Your task to perform on an android device: delete a single message in the gmail app Image 0: 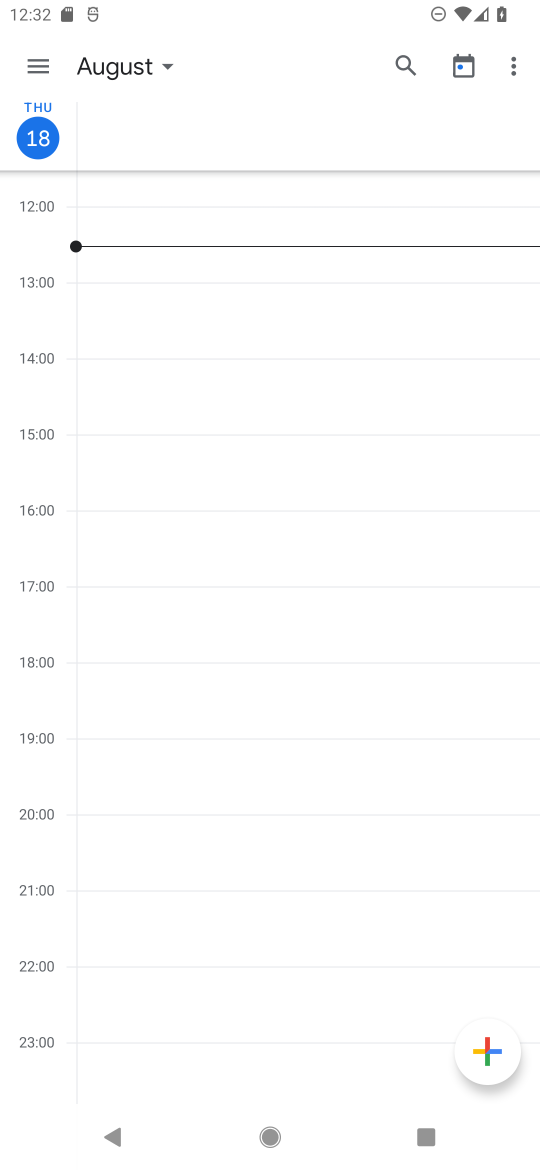
Step 0: press home button
Your task to perform on an android device: delete a single message in the gmail app Image 1: 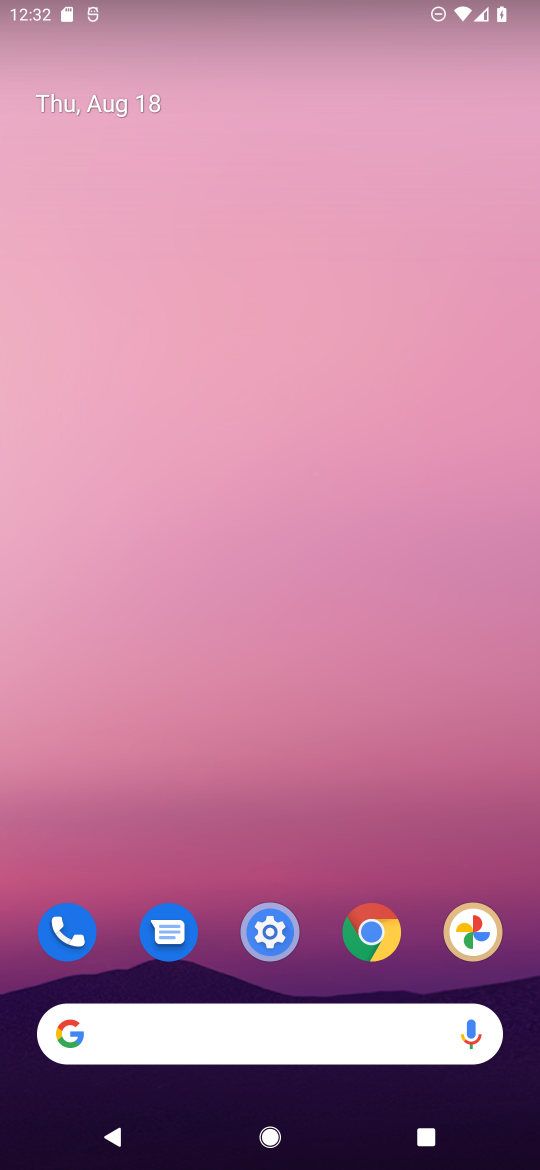
Step 1: drag from (306, 822) to (278, 186)
Your task to perform on an android device: delete a single message in the gmail app Image 2: 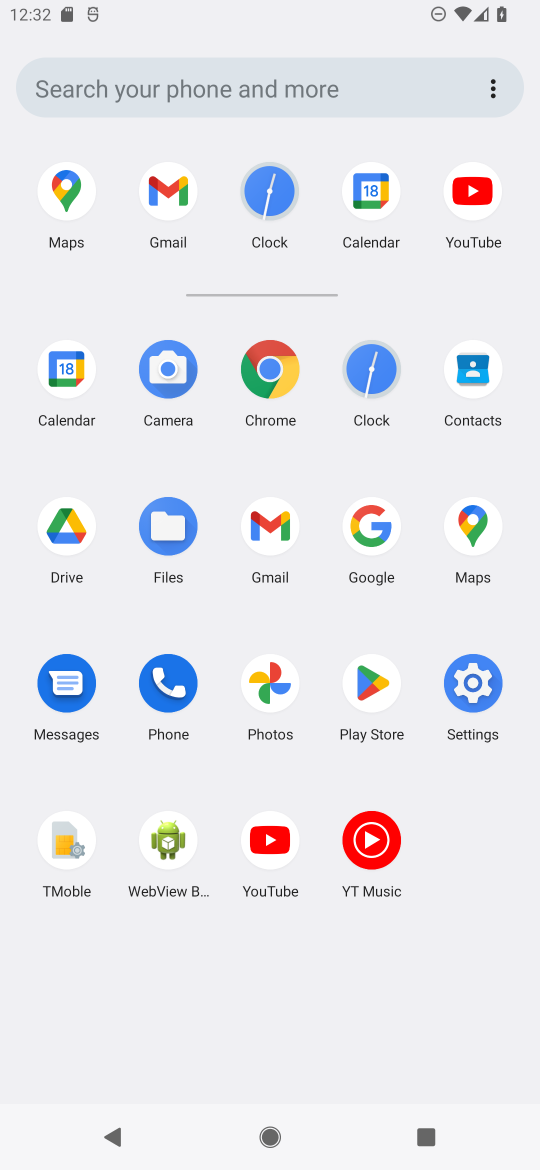
Step 2: click (162, 191)
Your task to perform on an android device: delete a single message in the gmail app Image 3: 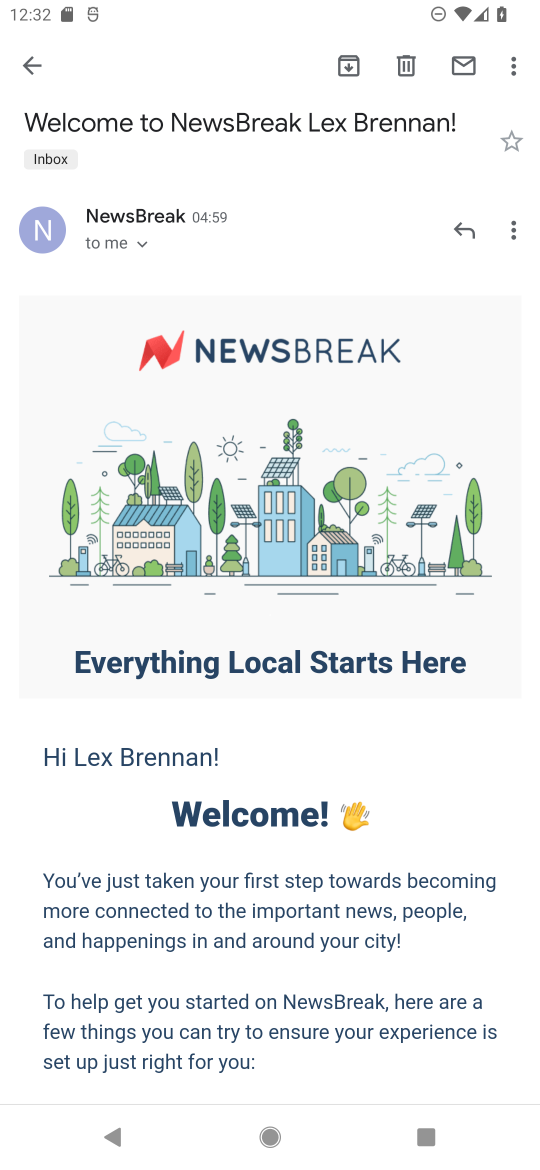
Step 3: click (409, 58)
Your task to perform on an android device: delete a single message in the gmail app Image 4: 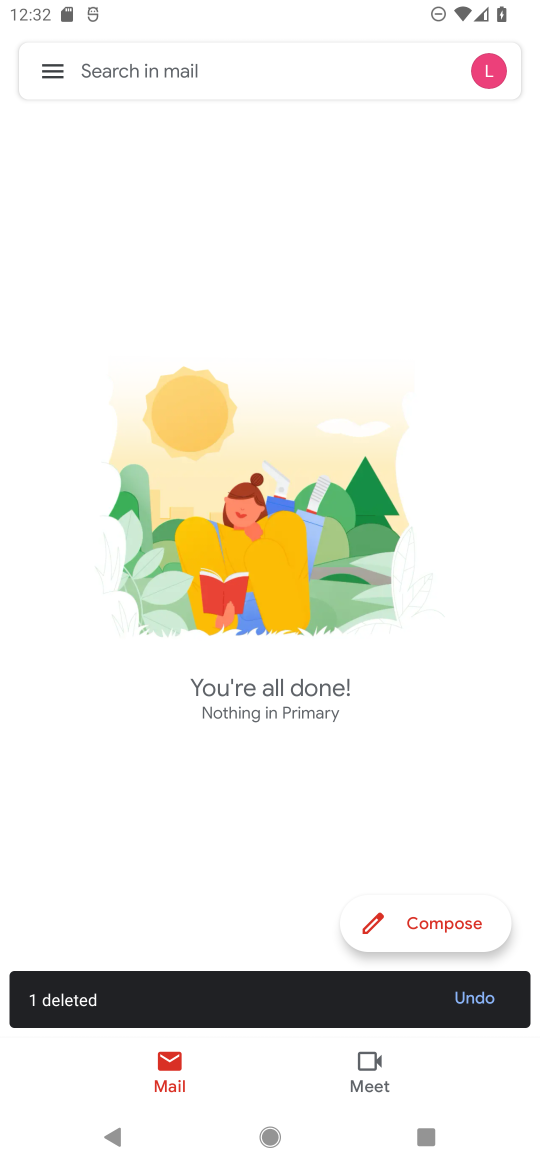
Step 4: task complete